Your task to perform on an android device: turn off notifications in google photos Image 0: 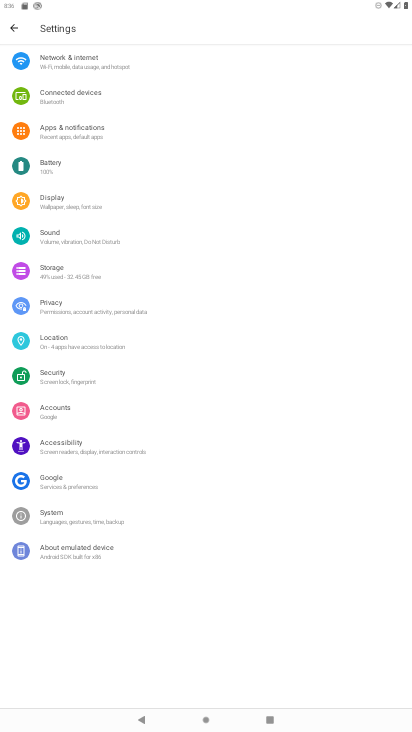
Step 0: click (82, 146)
Your task to perform on an android device: turn off notifications in google photos Image 1: 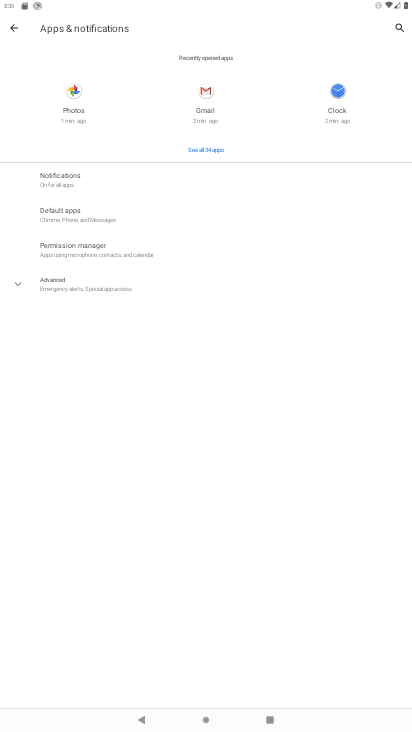
Step 1: click (75, 93)
Your task to perform on an android device: turn off notifications in google photos Image 2: 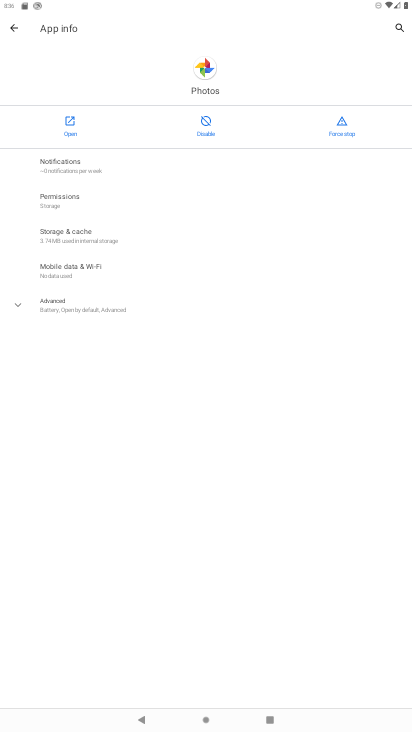
Step 2: click (75, 181)
Your task to perform on an android device: turn off notifications in google photos Image 3: 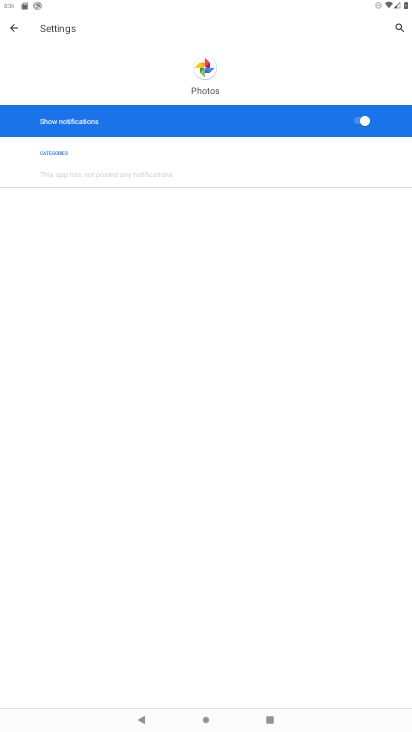
Step 3: click (362, 125)
Your task to perform on an android device: turn off notifications in google photos Image 4: 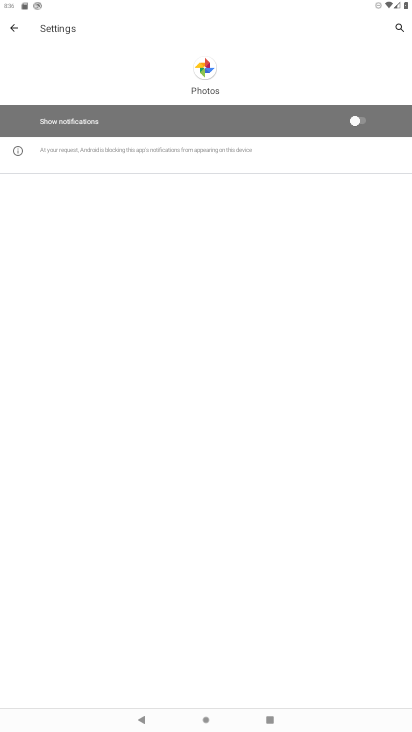
Step 4: task complete